Your task to perform on an android device: Search for Italian restaurants on Maps Image 0: 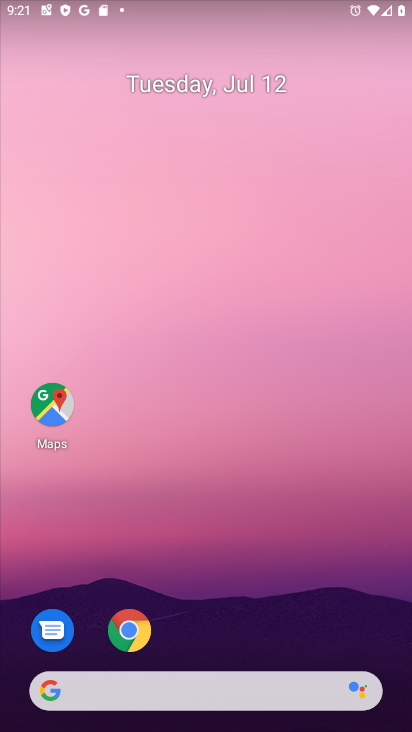
Step 0: click (49, 407)
Your task to perform on an android device: Search for Italian restaurants on Maps Image 1: 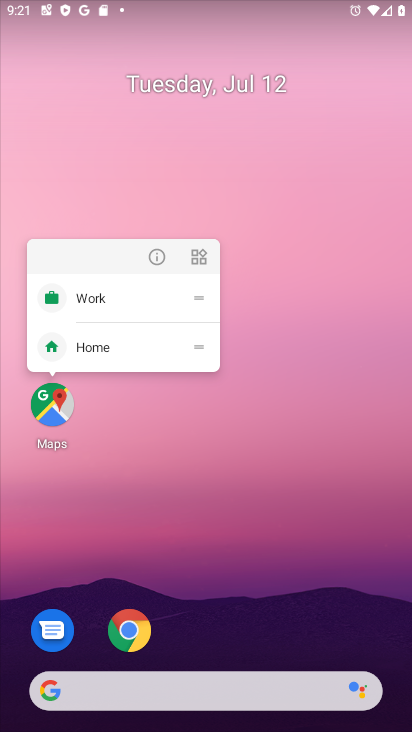
Step 1: click (49, 407)
Your task to perform on an android device: Search for Italian restaurants on Maps Image 2: 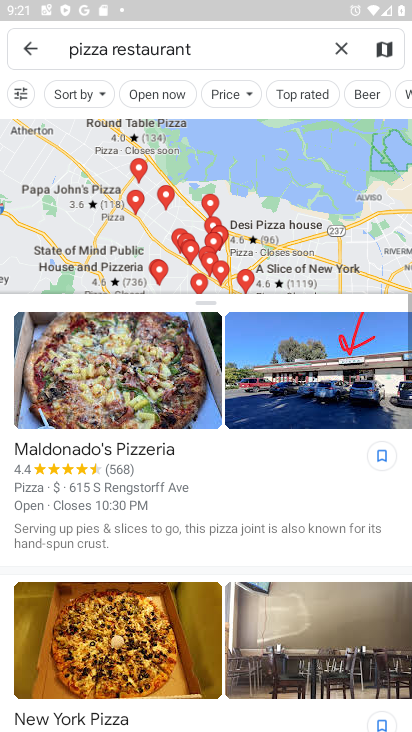
Step 2: click (322, 51)
Your task to perform on an android device: Search for Italian restaurants on Maps Image 3: 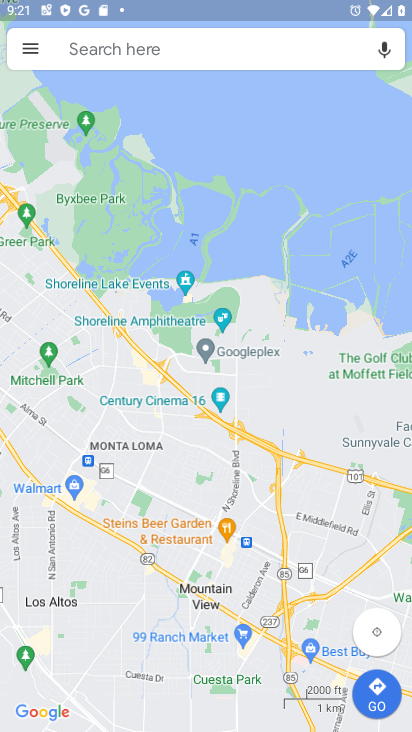
Step 3: click (186, 60)
Your task to perform on an android device: Search for Italian restaurants on Maps Image 4: 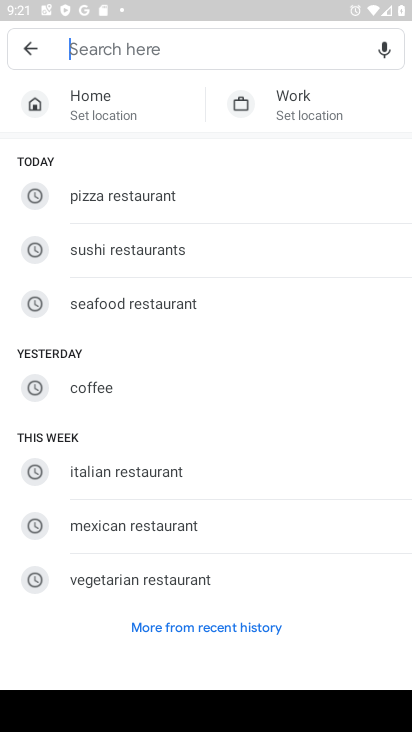
Step 4: click (155, 477)
Your task to perform on an android device: Search for Italian restaurants on Maps Image 5: 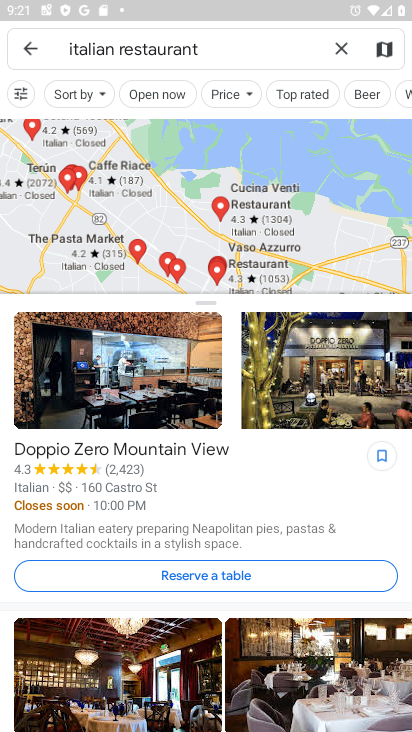
Step 5: task complete